Your task to perform on an android device: See recent photos Image 0: 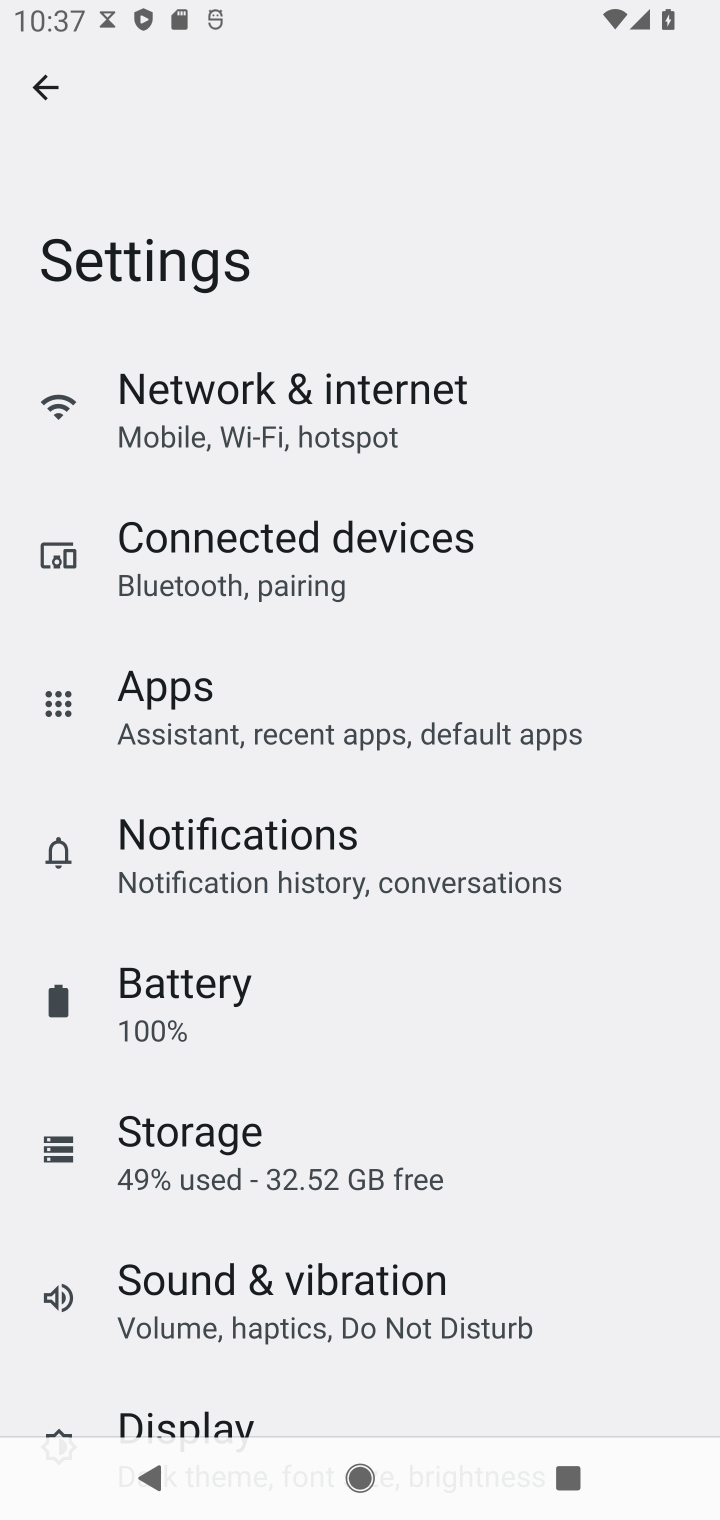
Step 0: press back button
Your task to perform on an android device: See recent photos Image 1: 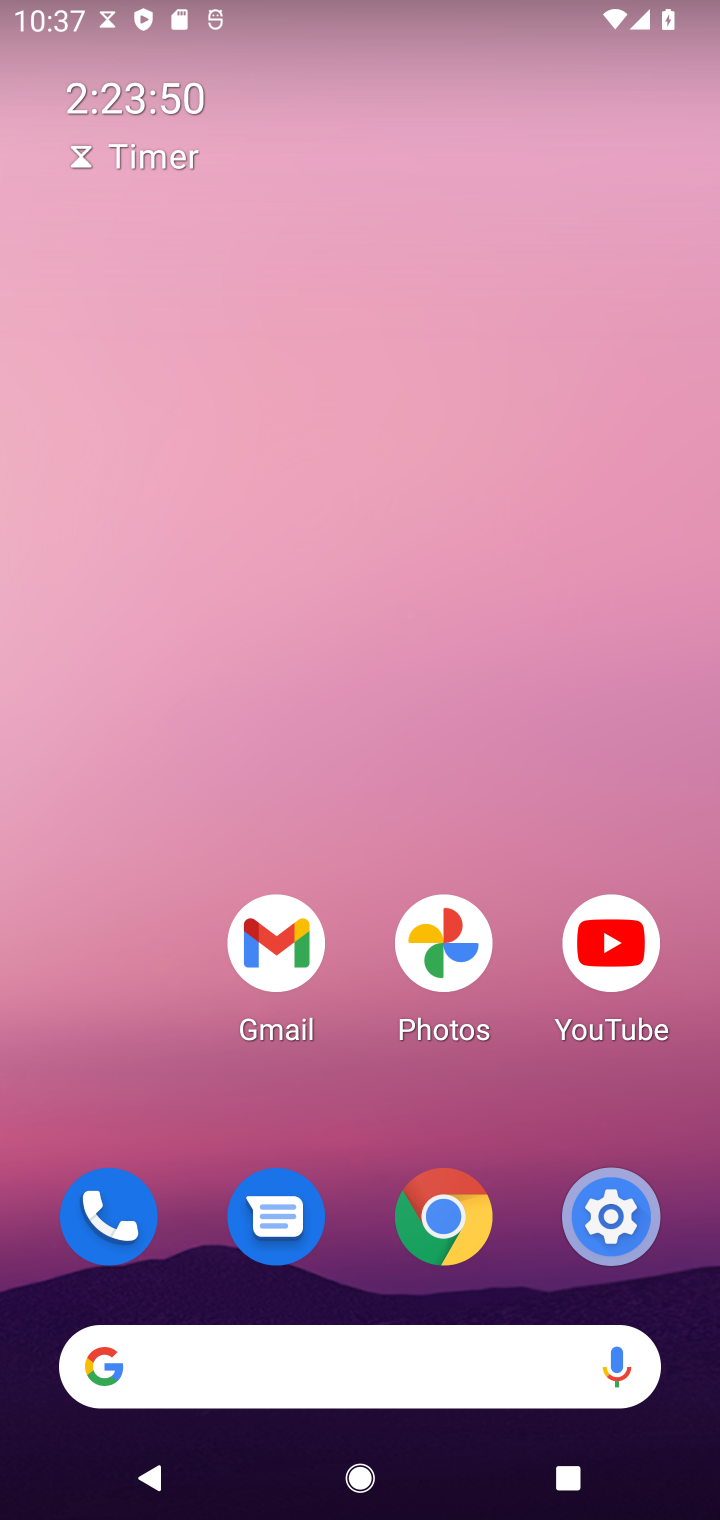
Step 1: click (435, 954)
Your task to perform on an android device: See recent photos Image 2: 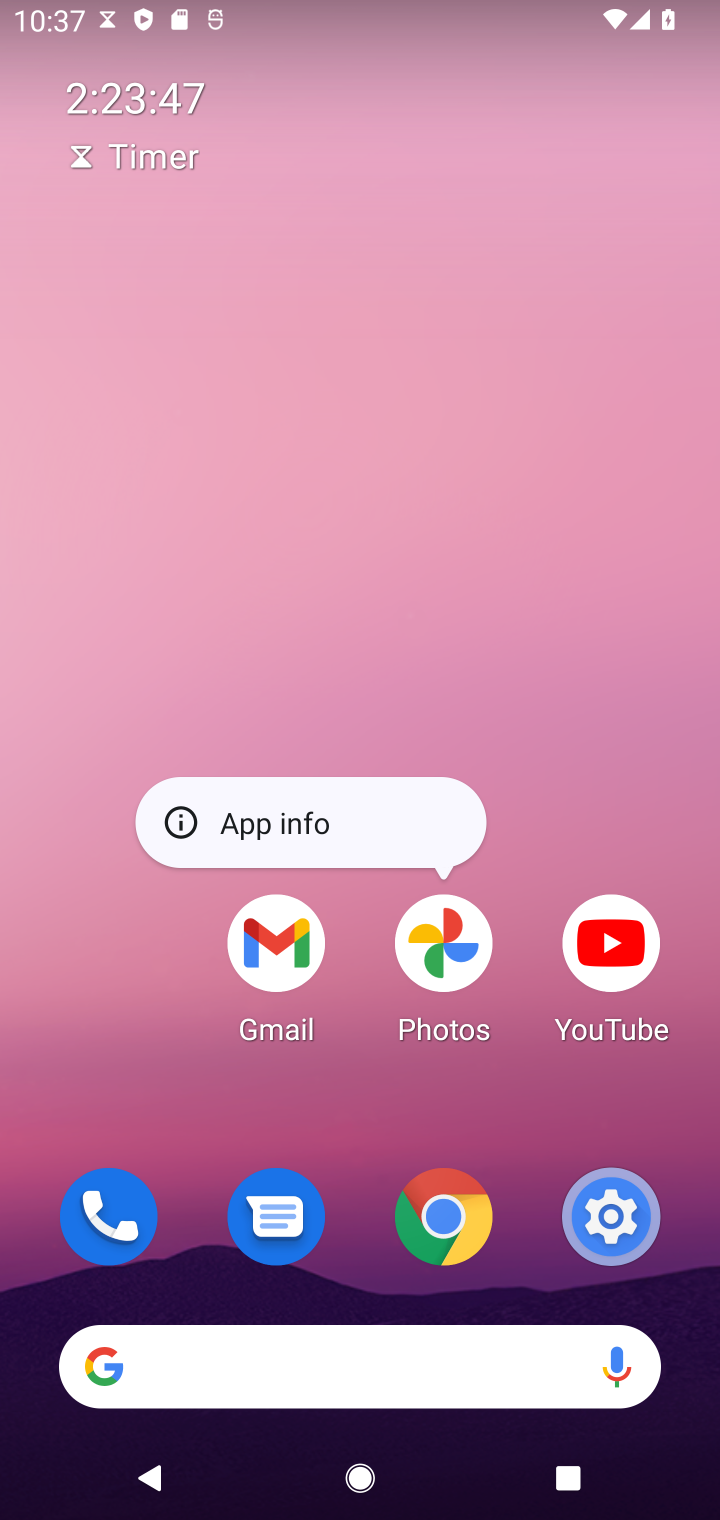
Step 2: click (435, 956)
Your task to perform on an android device: See recent photos Image 3: 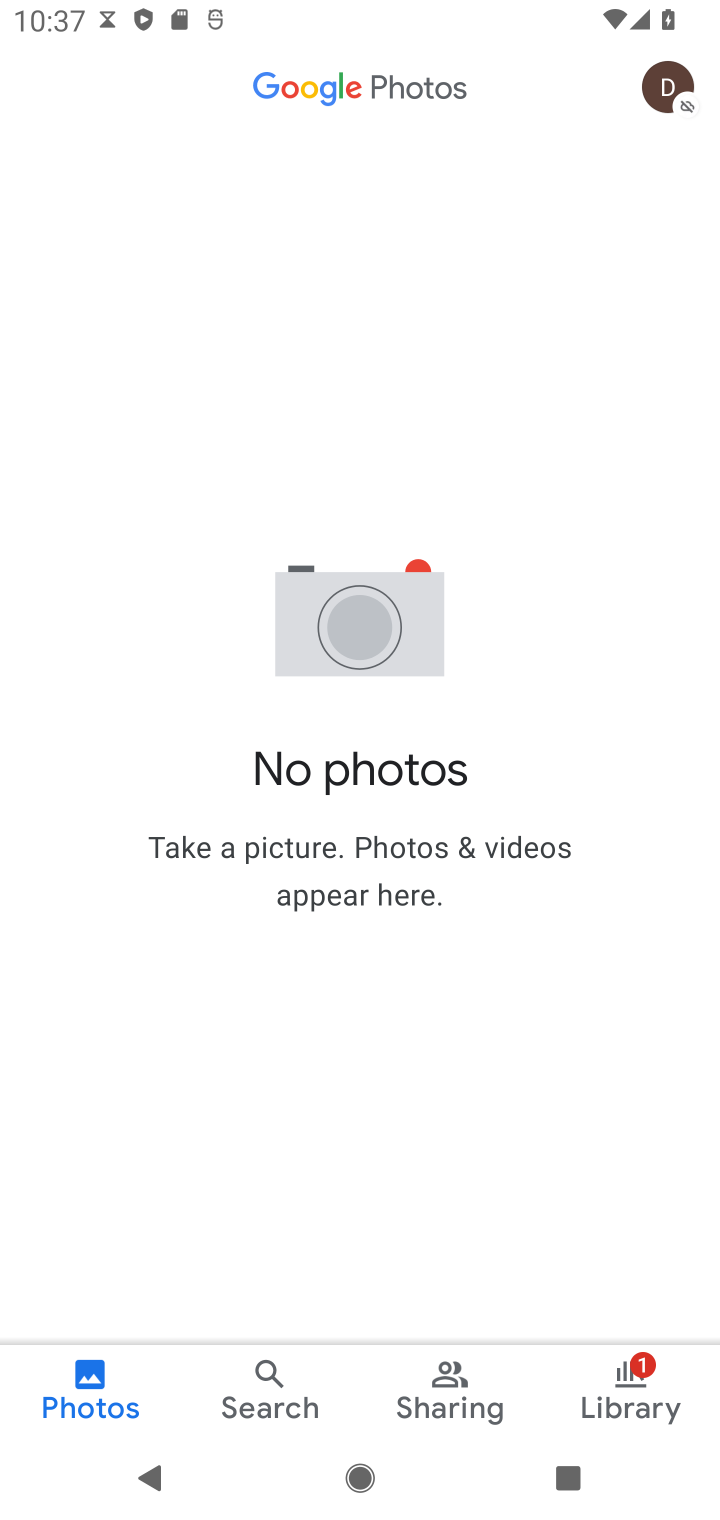
Step 3: task complete